Your task to perform on an android device: delete location history Image 0: 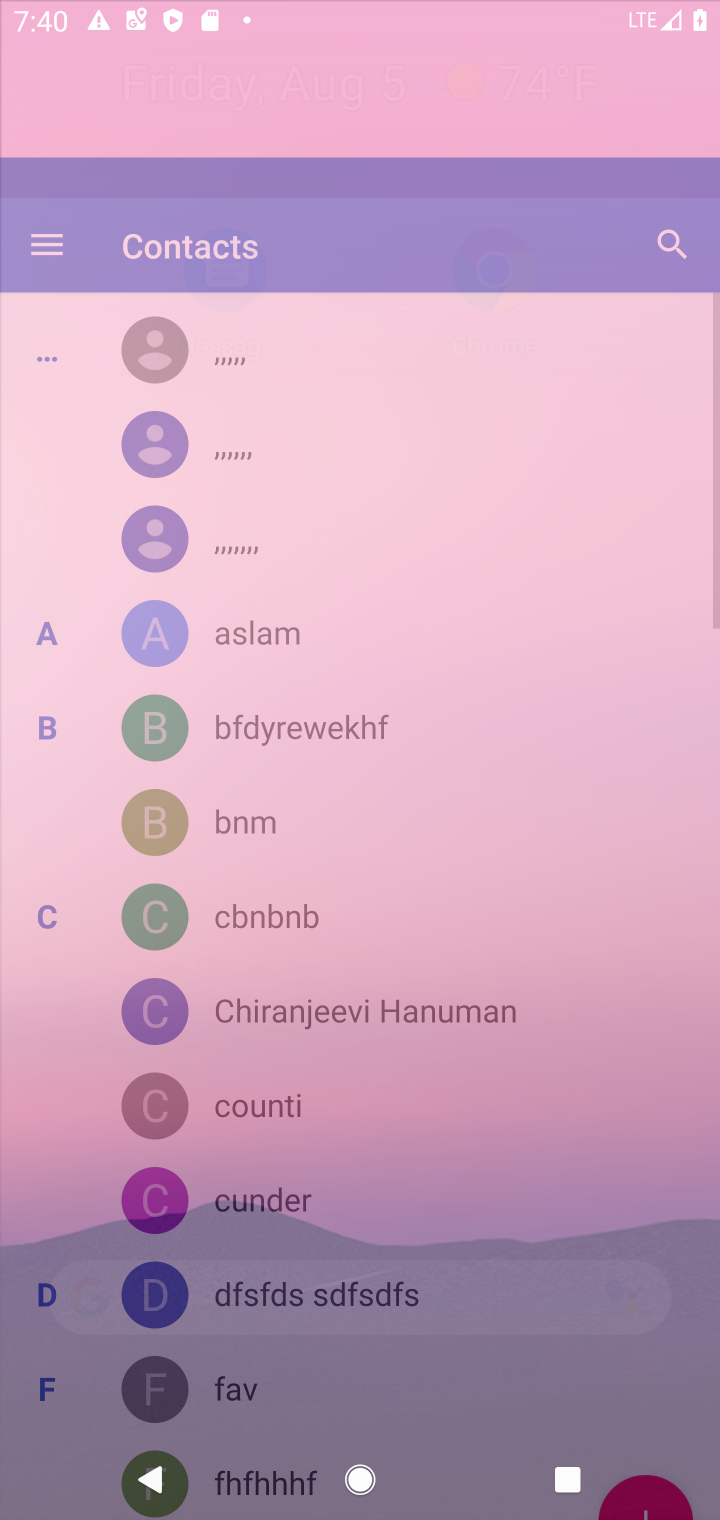
Step 0: press home button
Your task to perform on an android device: delete location history Image 1: 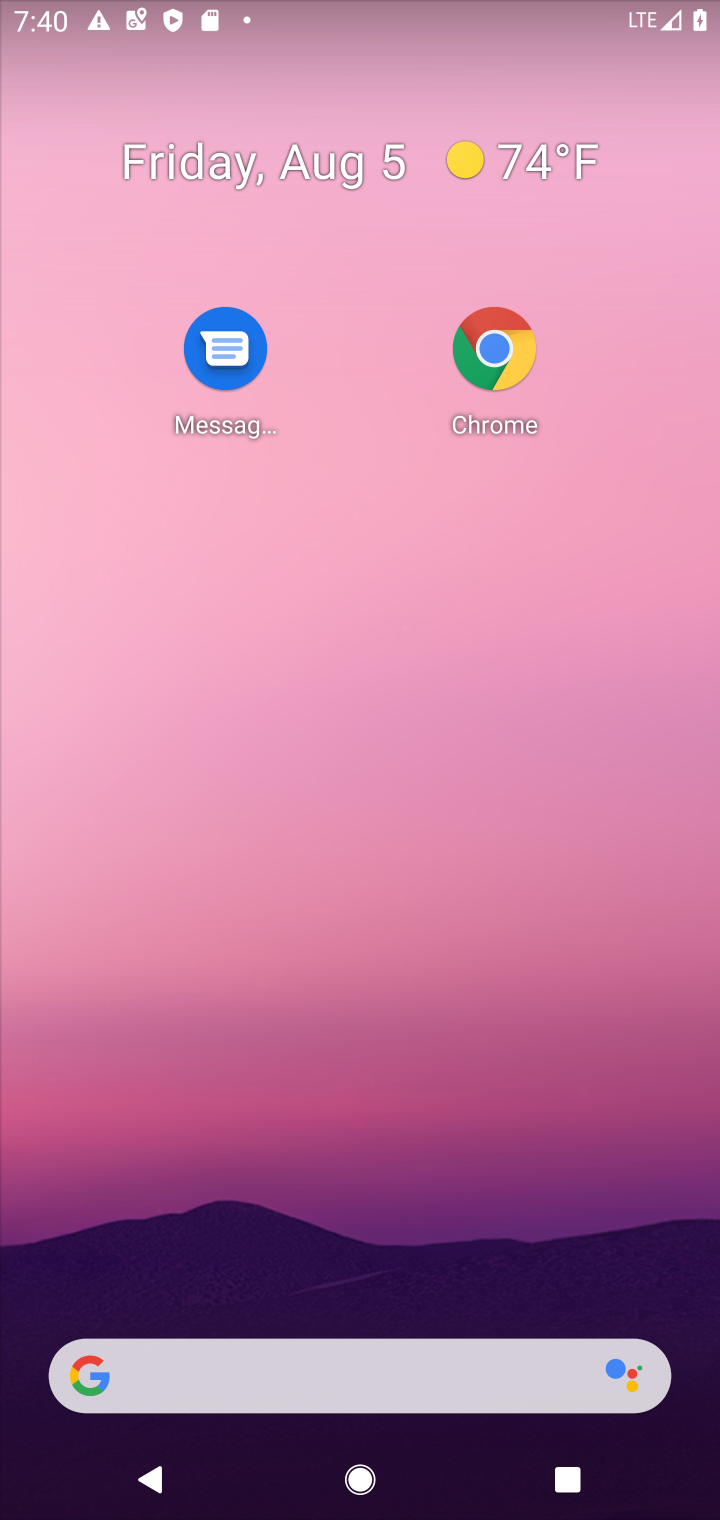
Step 1: drag from (453, 1421) to (209, 310)
Your task to perform on an android device: delete location history Image 2: 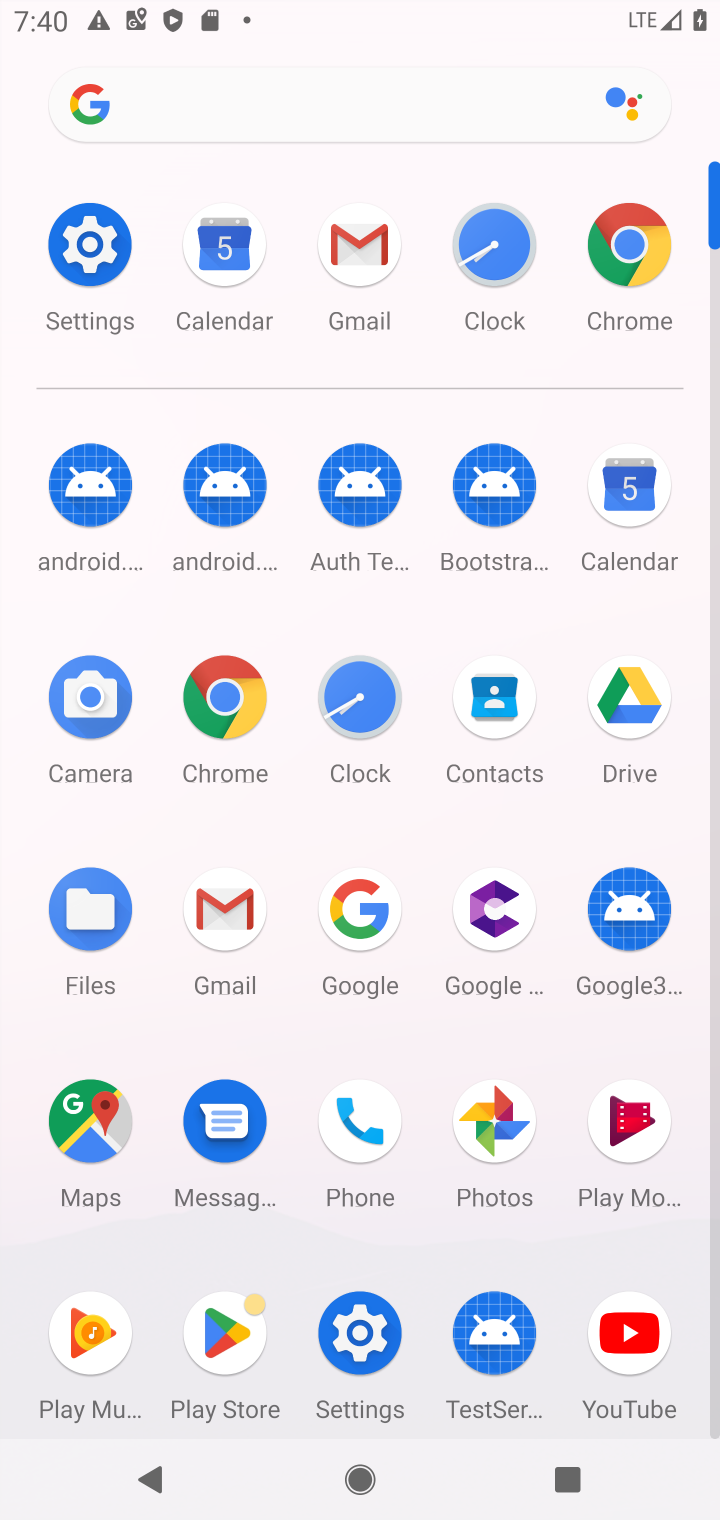
Step 2: click (86, 282)
Your task to perform on an android device: delete location history Image 3: 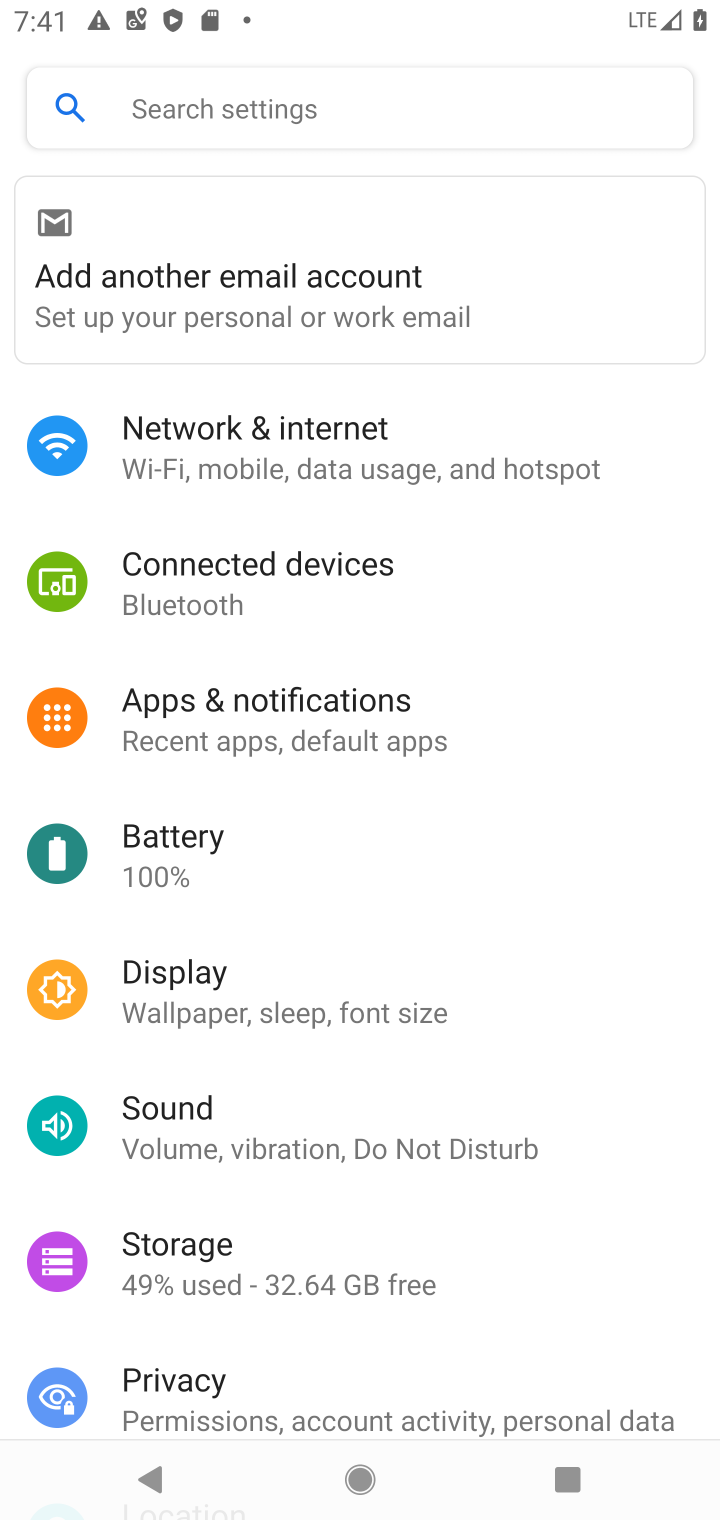
Step 3: drag from (289, 1195) to (250, 975)
Your task to perform on an android device: delete location history Image 4: 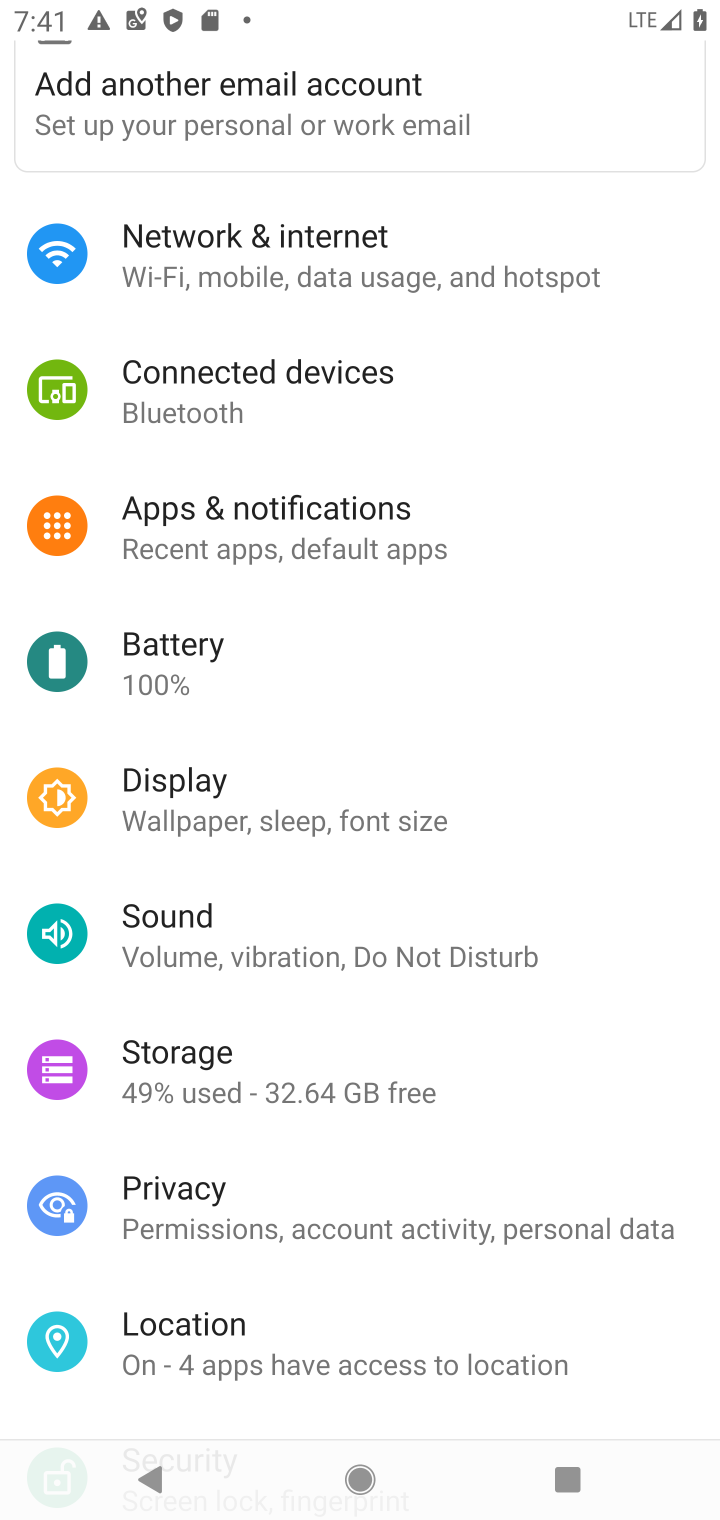
Step 4: click (307, 1340)
Your task to perform on an android device: delete location history Image 5: 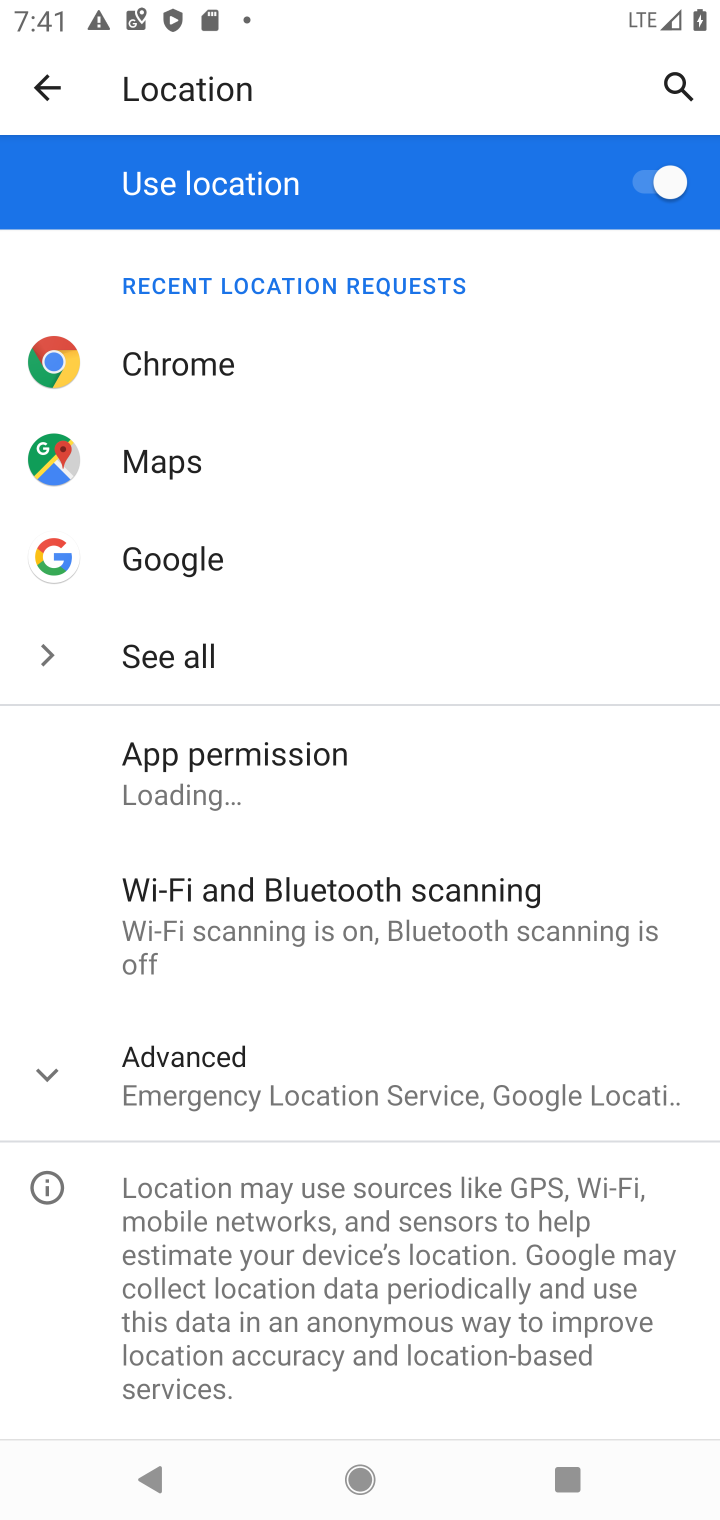
Step 5: click (77, 1056)
Your task to perform on an android device: delete location history Image 6: 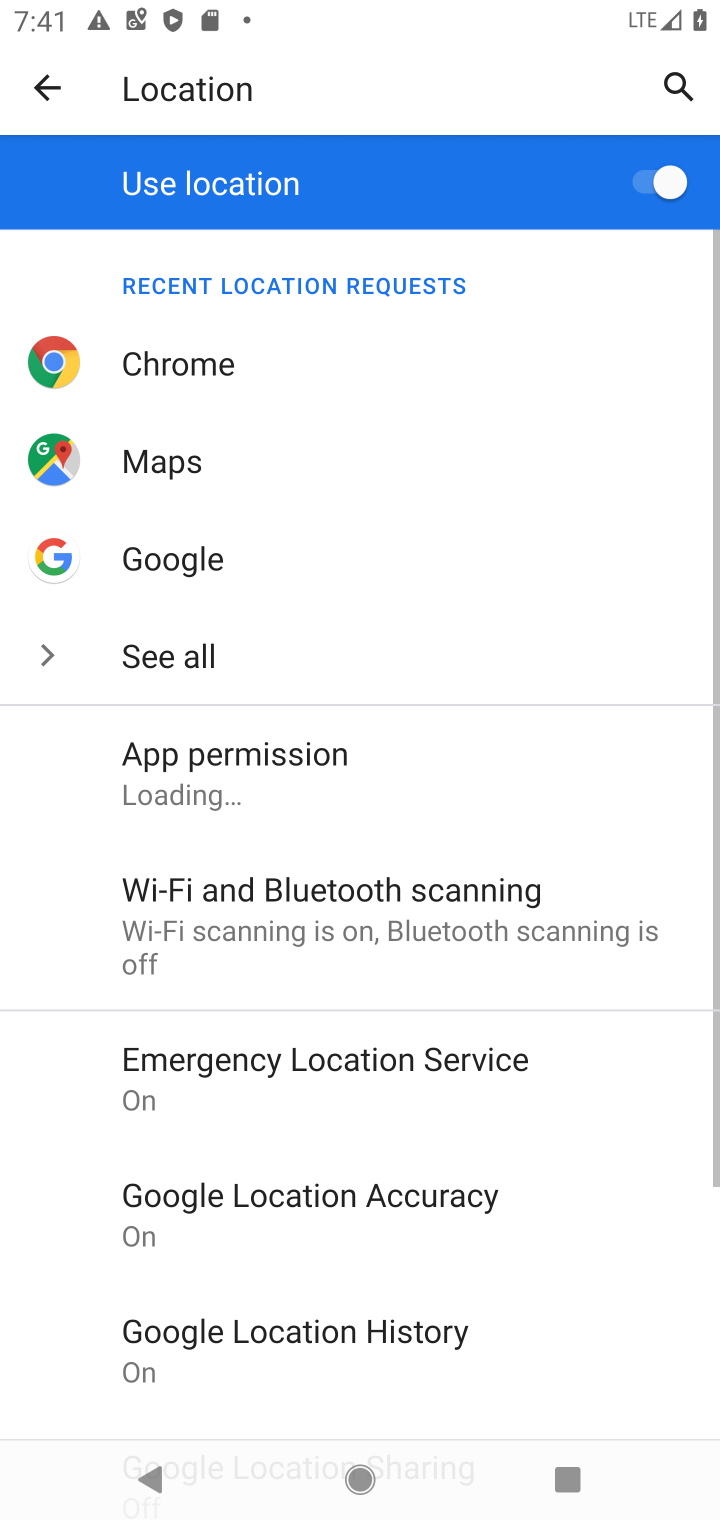
Step 6: drag from (382, 1308) to (377, 1215)
Your task to perform on an android device: delete location history Image 7: 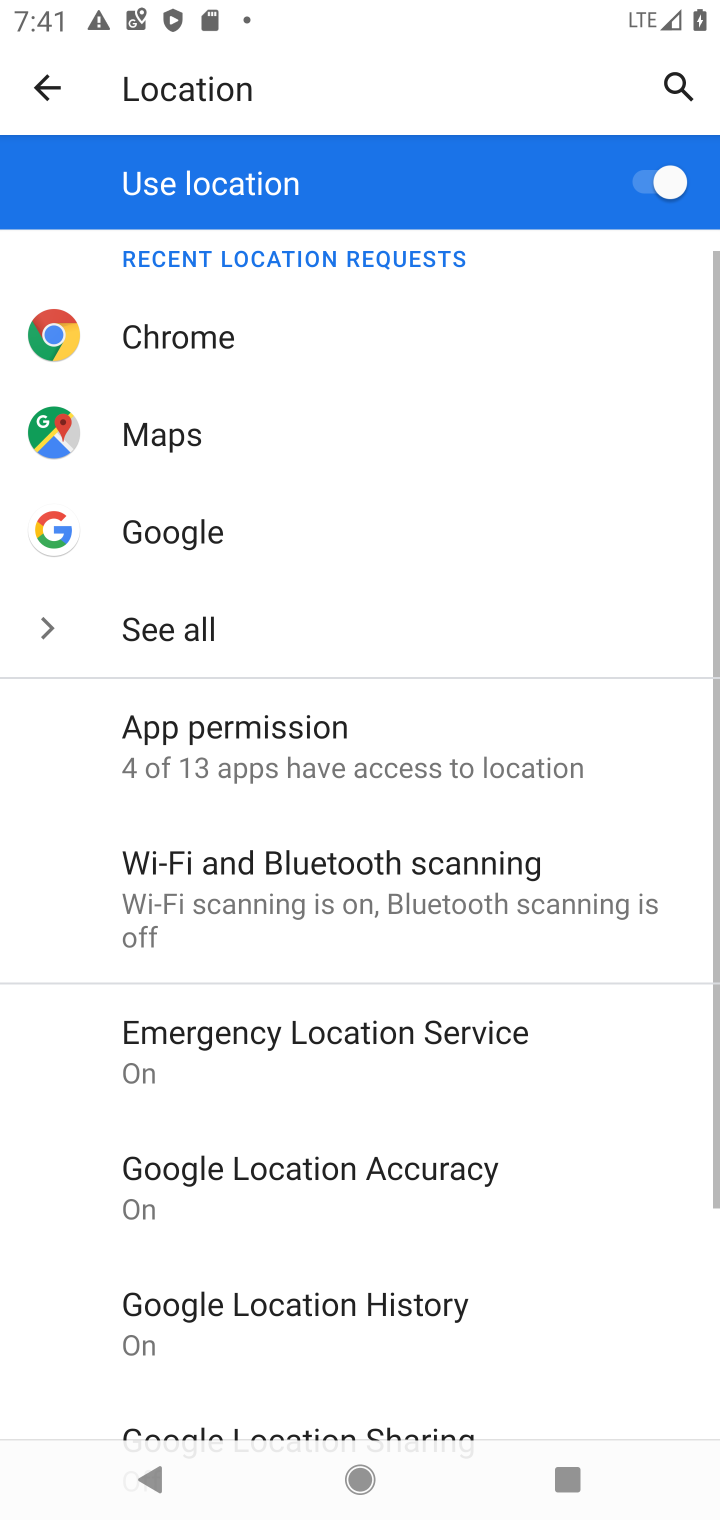
Step 7: click (333, 1289)
Your task to perform on an android device: delete location history Image 8: 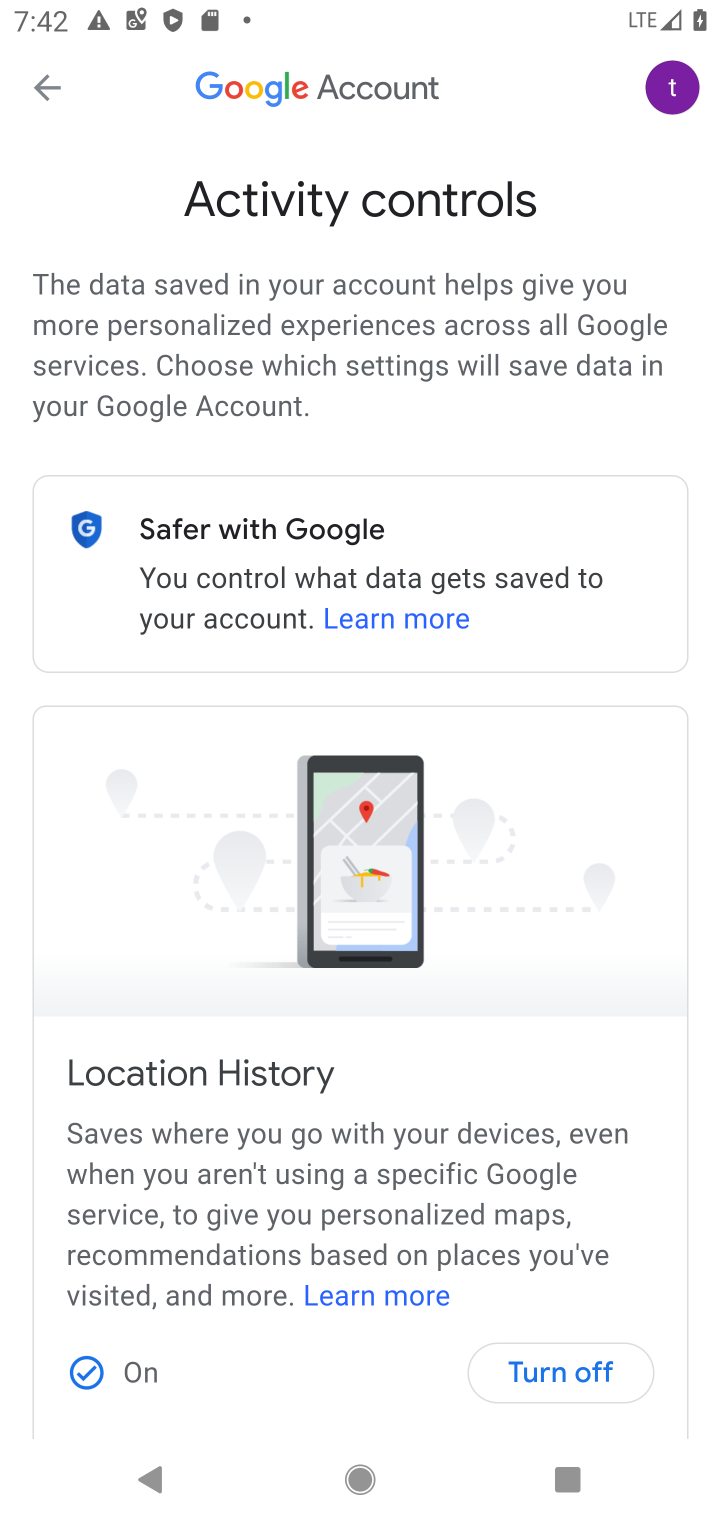
Step 8: task complete